Your task to perform on an android device: Open wifi settings Image 0: 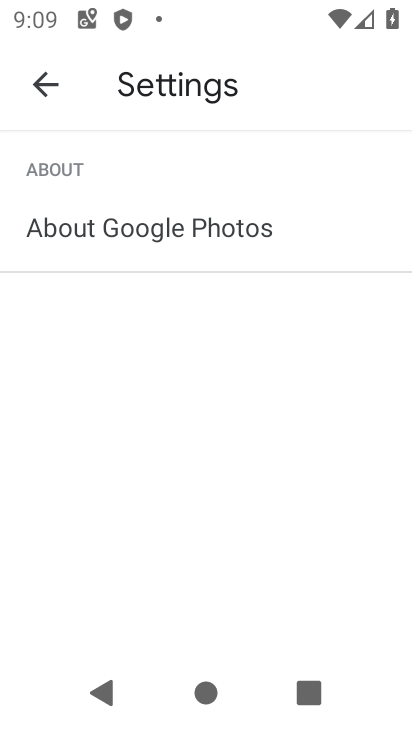
Step 0: press home button
Your task to perform on an android device: Open wifi settings Image 1: 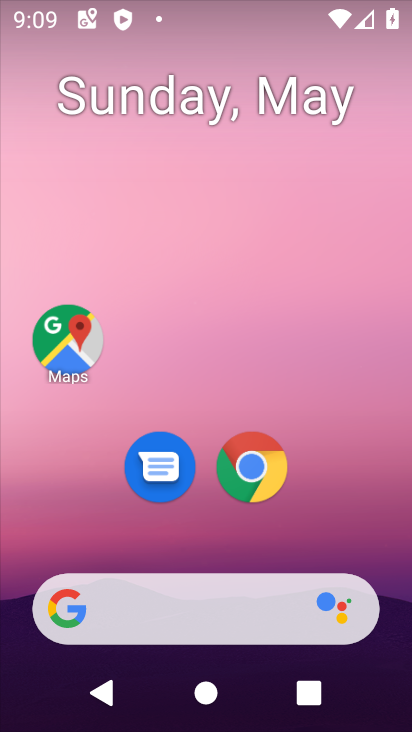
Step 1: drag from (328, 537) to (332, 114)
Your task to perform on an android device: Open wifi settings Image 2: 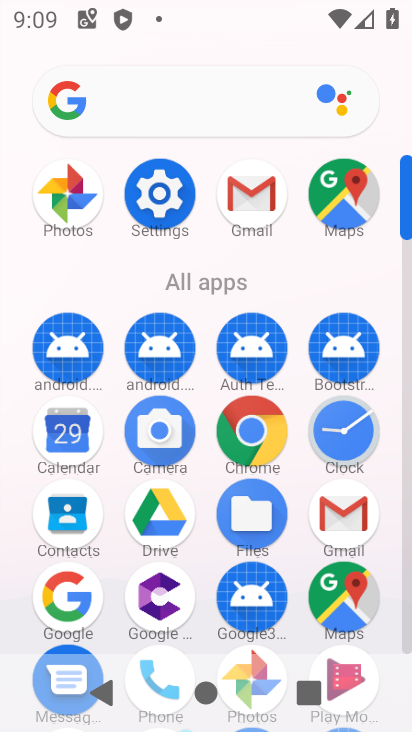
Step 2: click (158, 191)
Your task to perform on an android device: Open wifi settings Image 3: 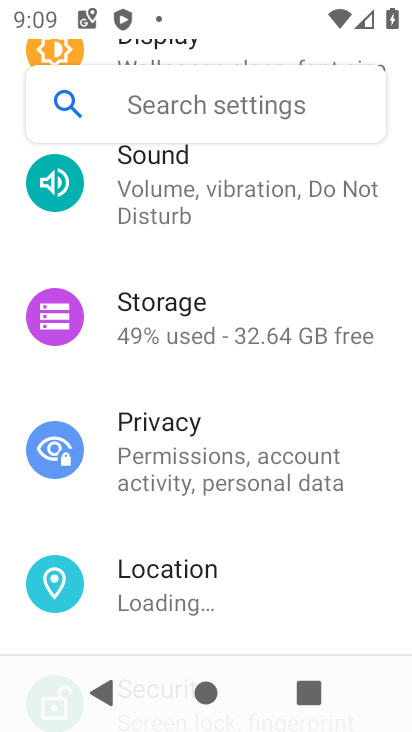
Step 3: drag from (171, 195) to (93, 649)
Your task to perform on an android device: Open wifi settings Image 4: 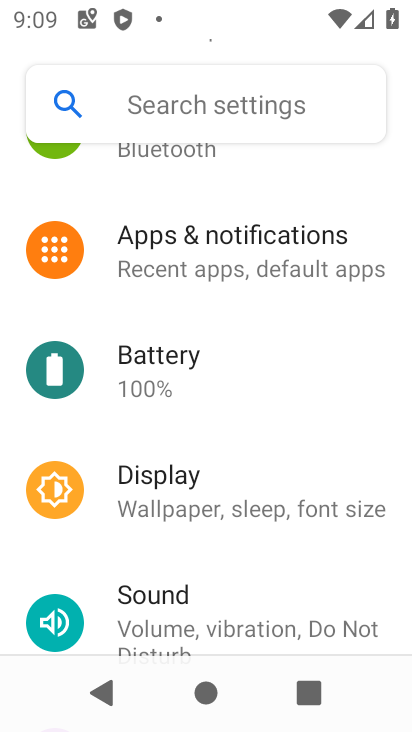
Step 4: drag from (155, 177) to (169, 632)
Your task to perform on an android device: Open wifi settings Image 5: 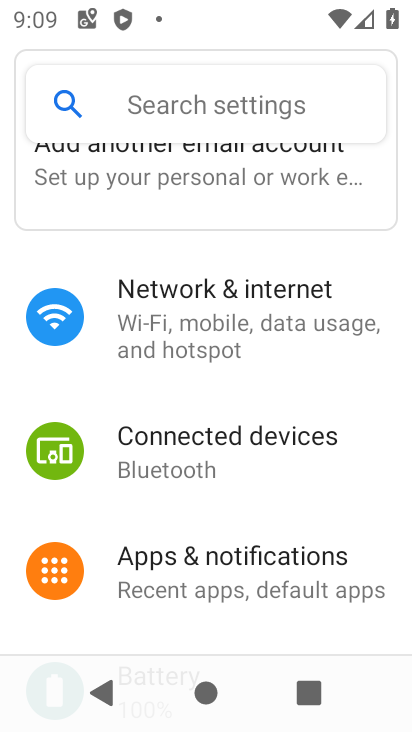
Step 5: click (174, 329)
Your task to perform on an android device: Open wifi settings Image 6: 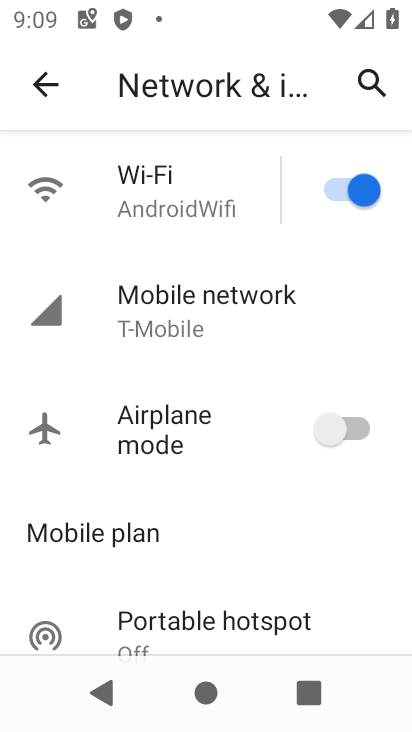
Step 6: click (146, 204)
Your task to perform on an android device: Open wifi settings Image 7: 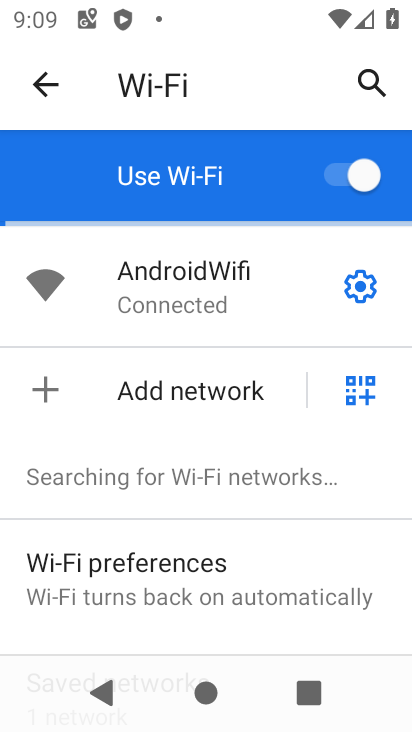
Step 7: task complete